Your task to perform on an android device: Open Chrome and go to the settings page Image 0: 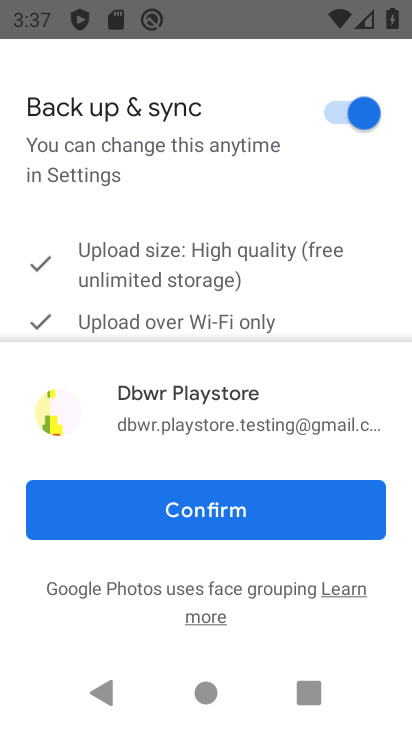
Step 0: press home button
Your task to perform on an android device: Open Chrome and go to the settings page Image 1: 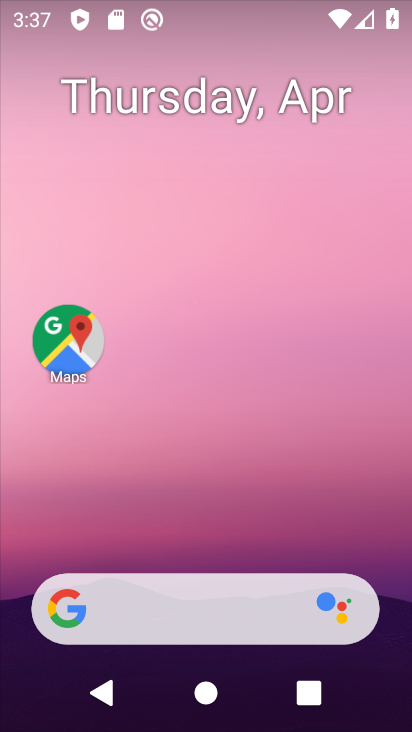
Step 1: drag from (209, 723) to (212, 129)
Your task to perform on an android device: Open Chrome and go to the settings page Image 2: 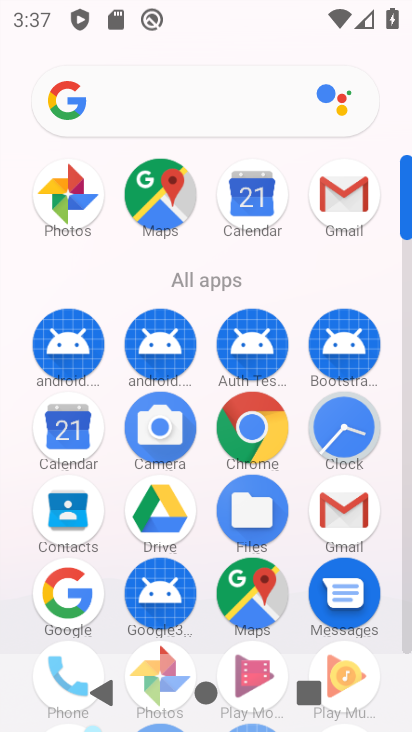
Step 2: click (253, 428)
Your task to perform on an android device: Open Chrome and go to the settings page Image 3: 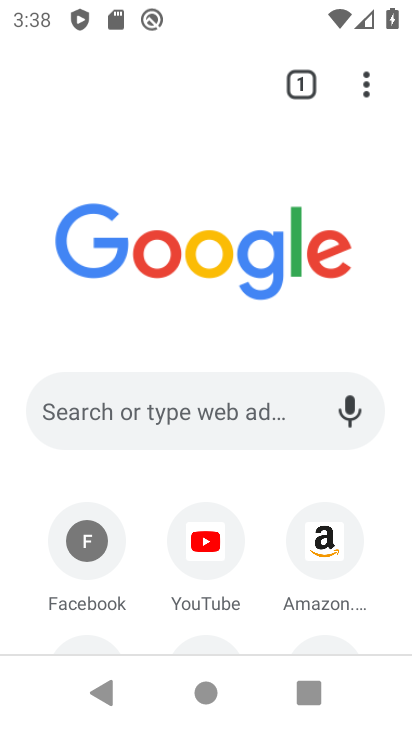
Step 3: task complete